Your task to perform on an android device: toggle show notifications on the lock screen Image 0: 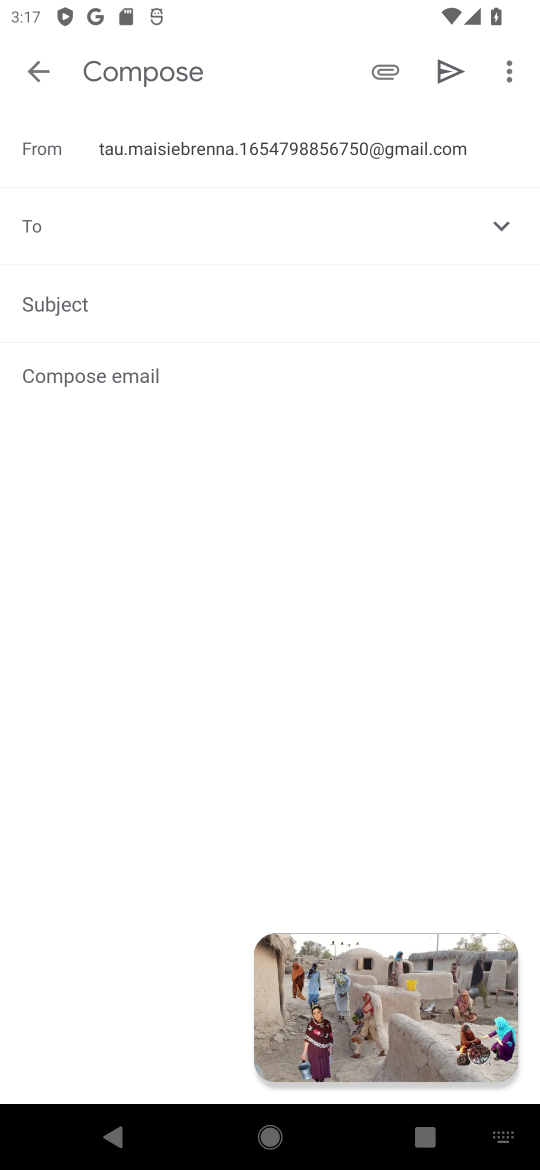
Step 0: click (483, 969)
Your task to perform on an android device: toggle show notifications on the lock screen Image 1: 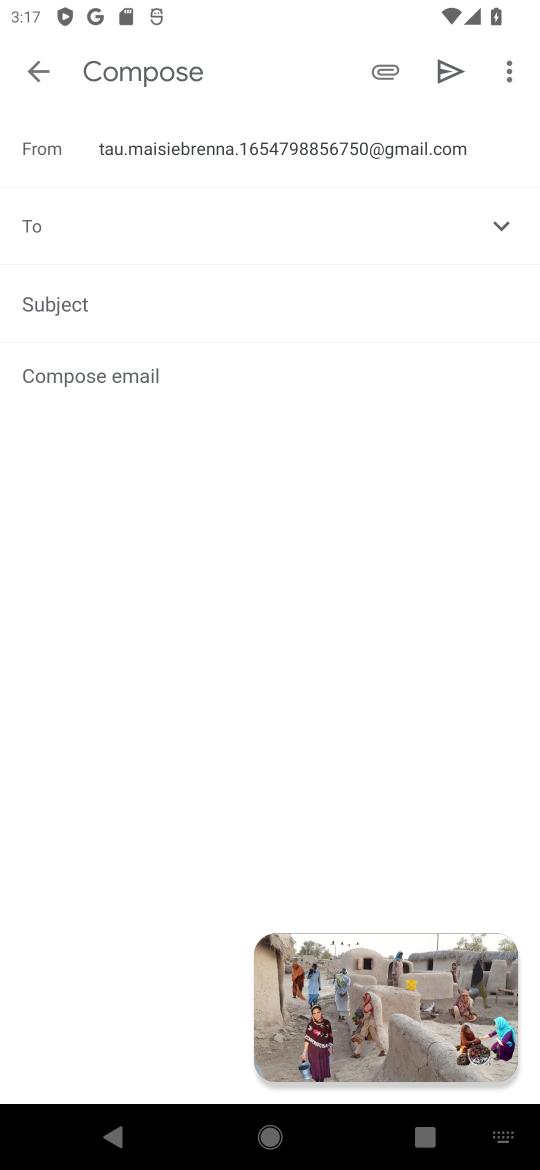
Step 1: click (488, 967)
Your task to perform on an android device: toggle show notifications on the lock screen Image 2: 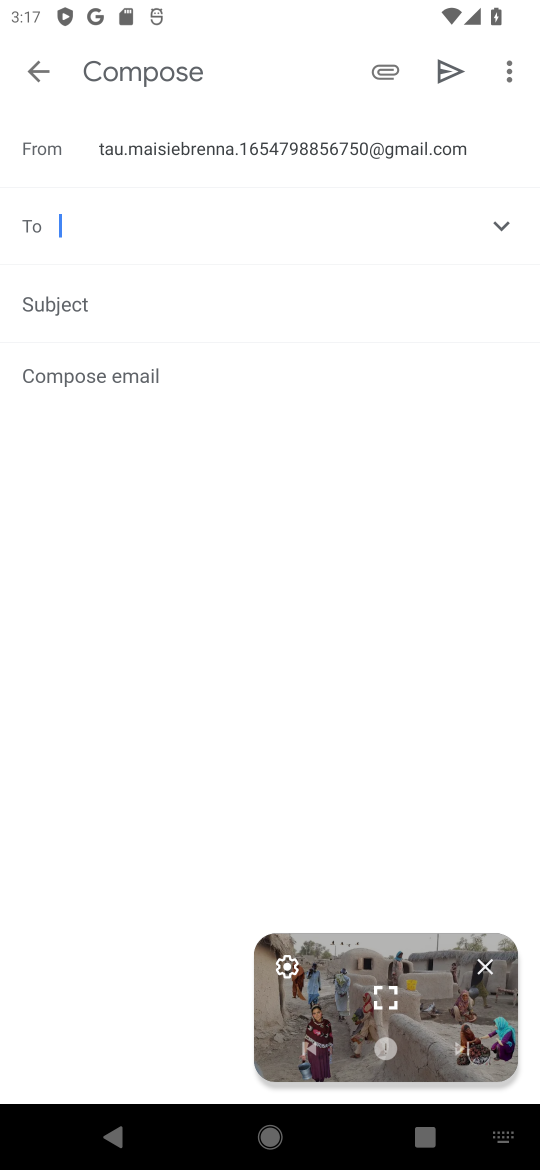
Step 2: click (480, 970)
Your task to perform on an android device: toggle show notifications on the lock screen Image 3: 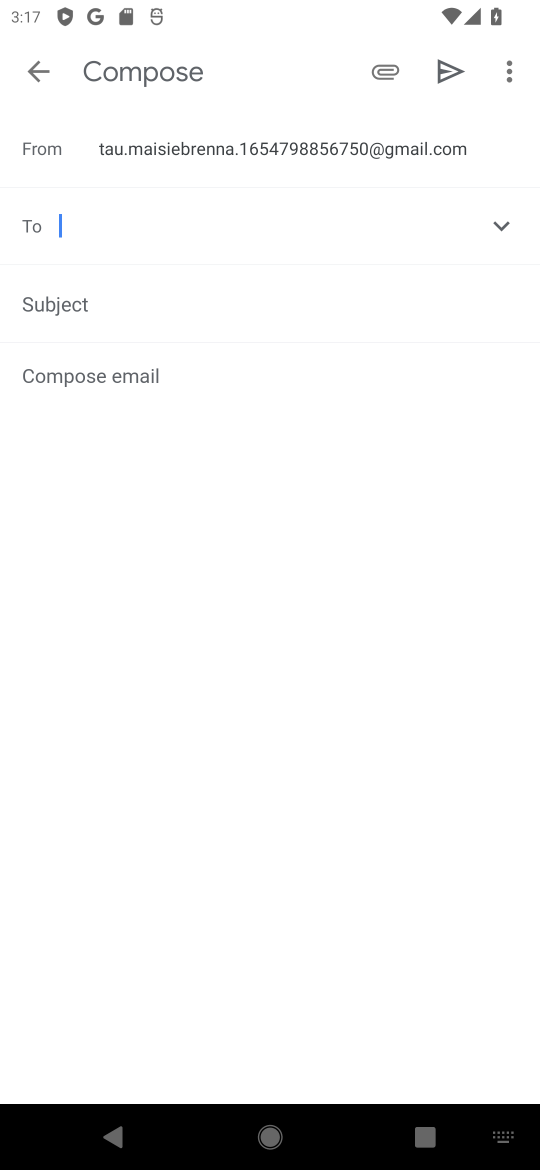
Step 3: press home button
Your task to perform on an android device: toggle show notifications on the lock screen Image 4: 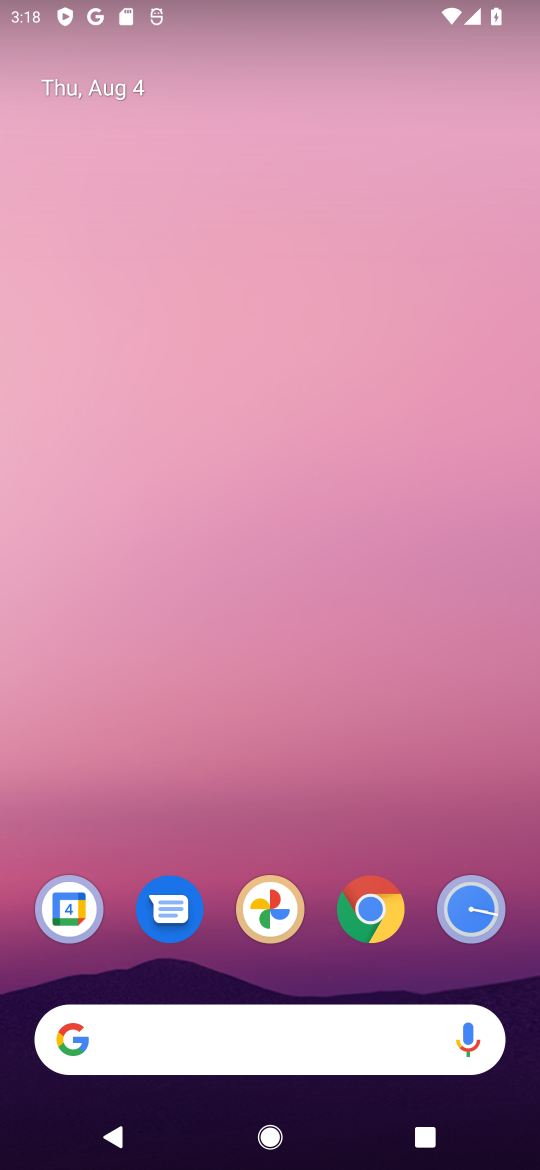
Step 4: drag from (423, 521) to (443, 472)
Your task to perform on an android device: toggle show notifications on the lock screen Image 5: 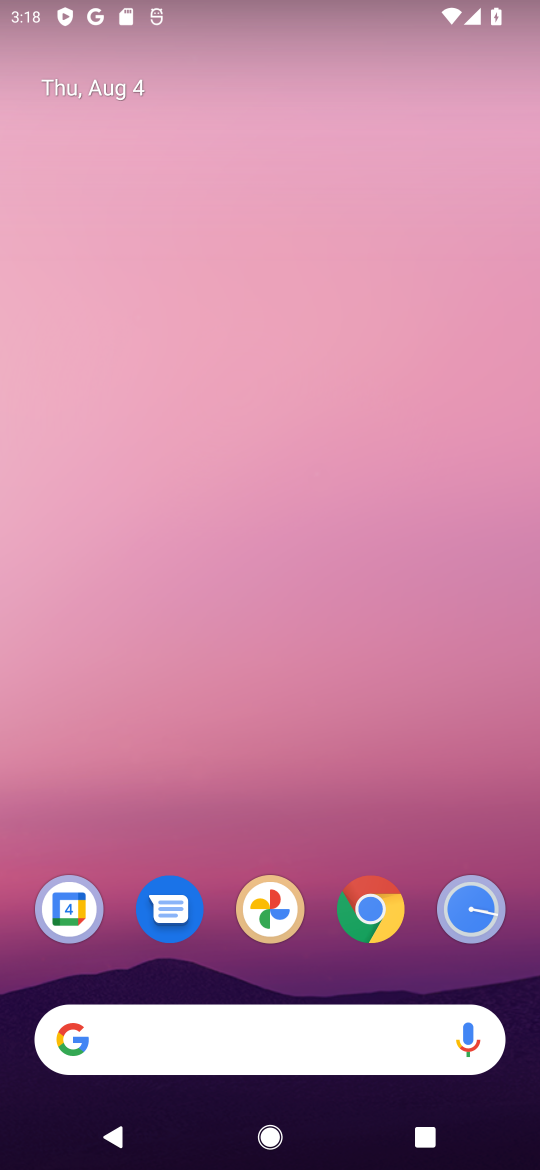
Step 5: drag from (204, 1016) to (330, 187)
Your task to perform on an android device: toggle show notifications on the lock screen Image 6: 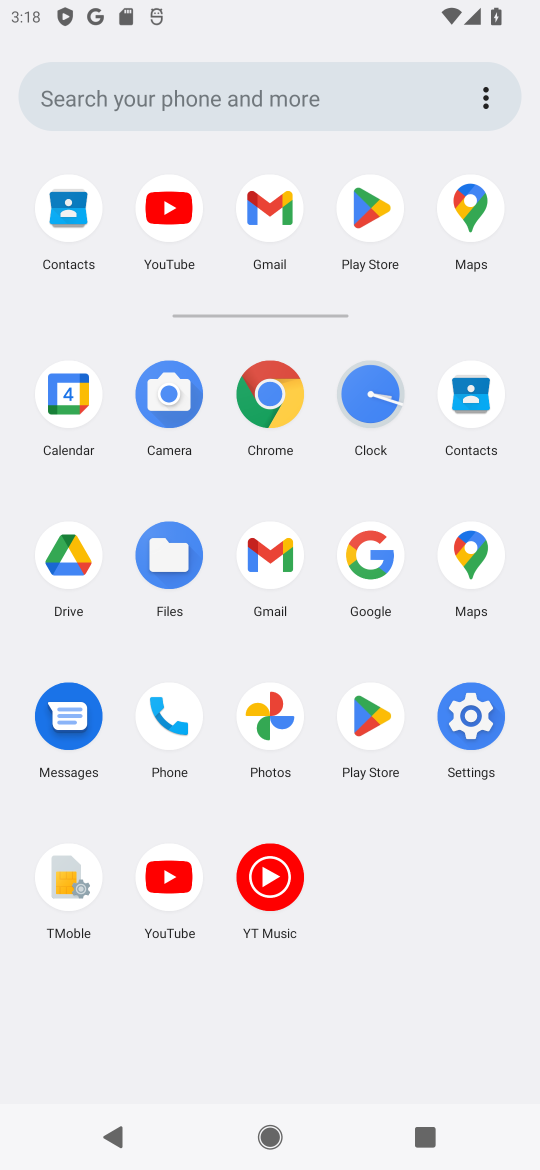
Step 6: click (485, 726)
Your task to perform on an android device: toggle show notifications on the lock screen Image 7: 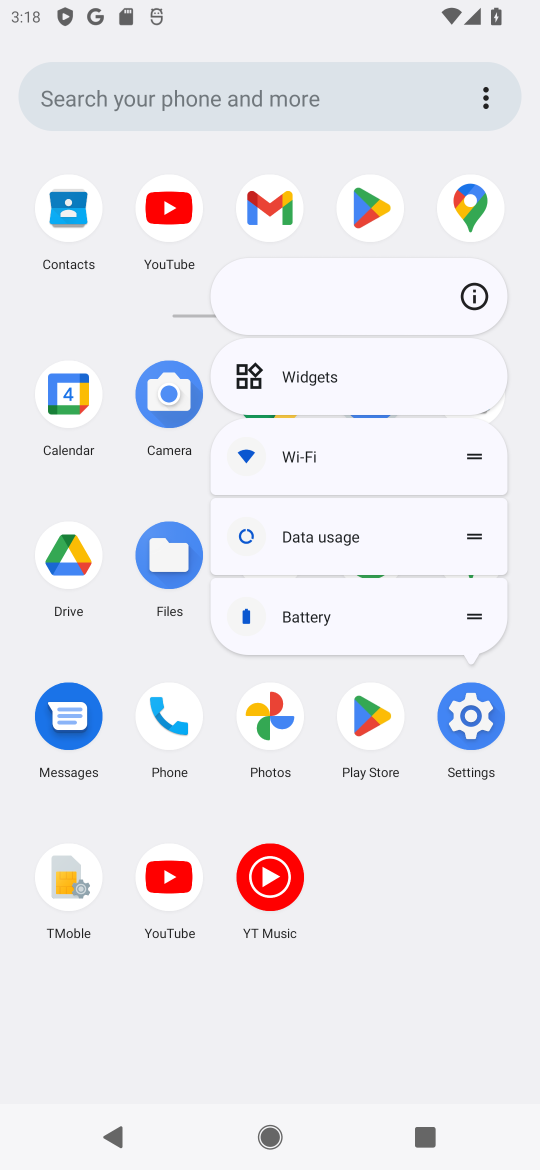
Step 7: click (469, 715)
Your task to perform on an android device: toggle show notifications on the lock screen Image 8: 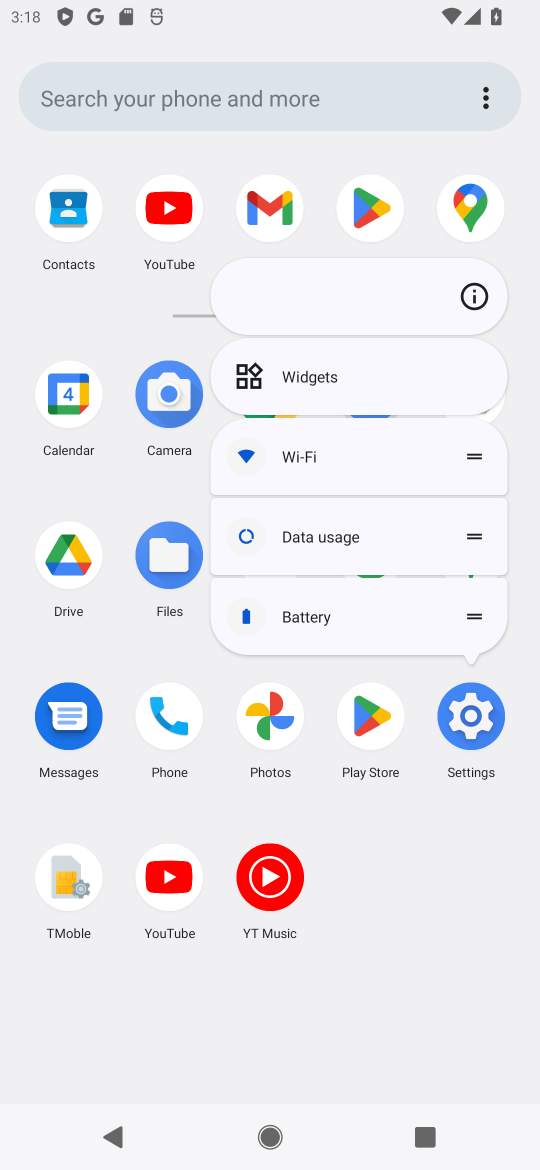
Step 8: click (469, 722)
Your task to perform on an android device: toggle show notifications on the lock screen Image 9: 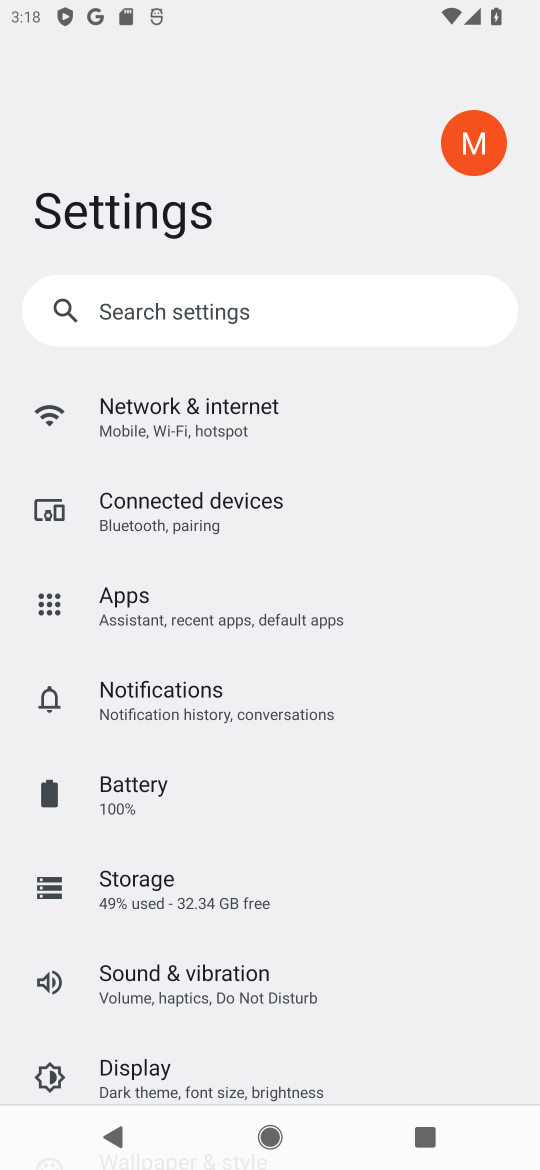
Step 9: click (157, 689)
Your task to perform on an android device: toggle show notifications on the lock screen Image 10: 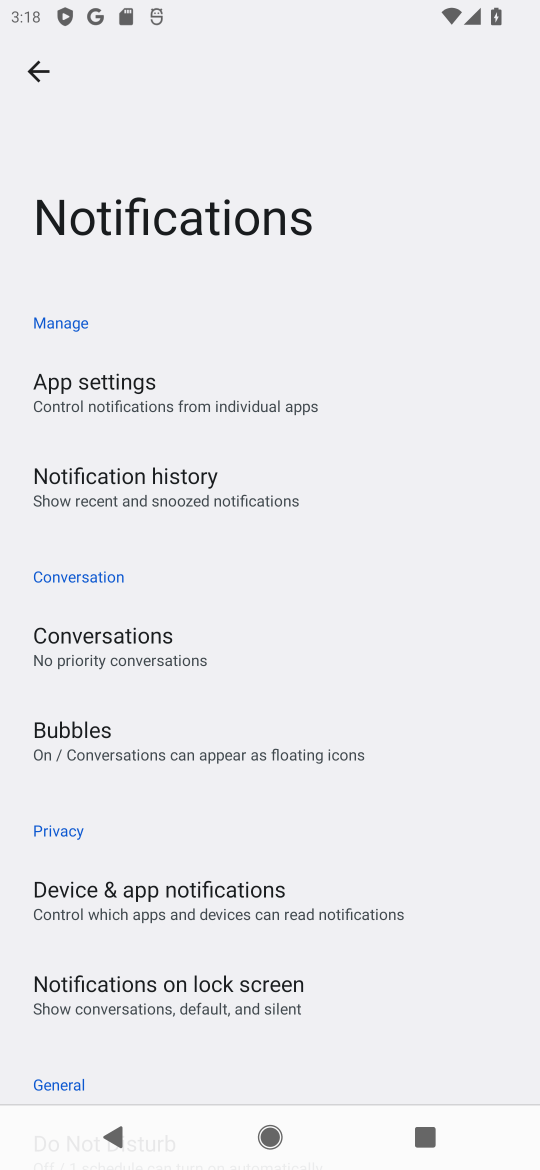
Step 10: click (231, 992)
Your task to perform on an android device: toggle show notifications on the lock screen Image 11: 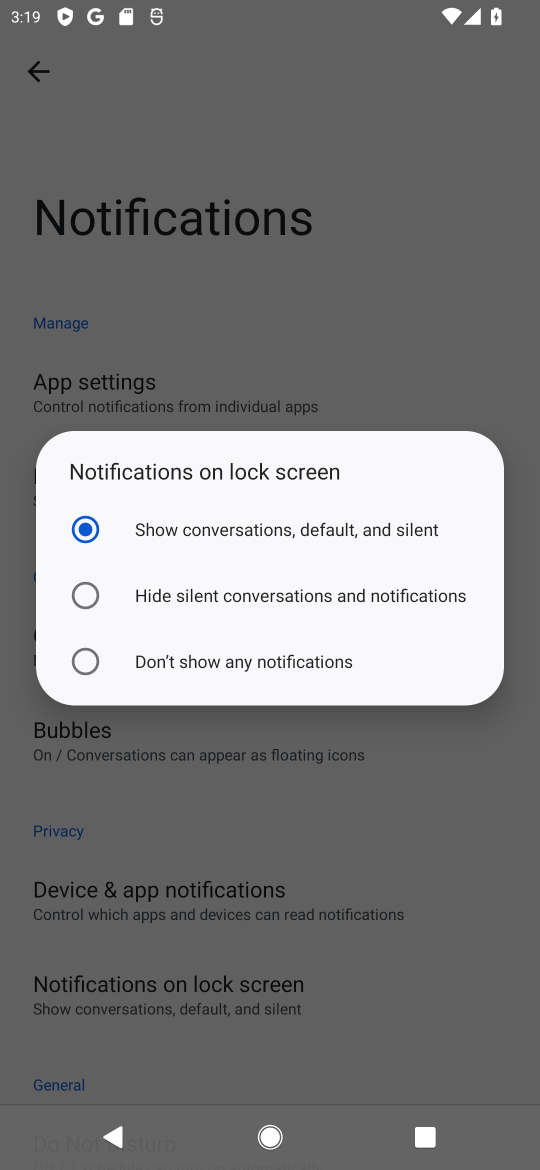
Step 11: click (81, 650)
Your task to perform on an android device: toggle show notifications on the lock screen Image 12: 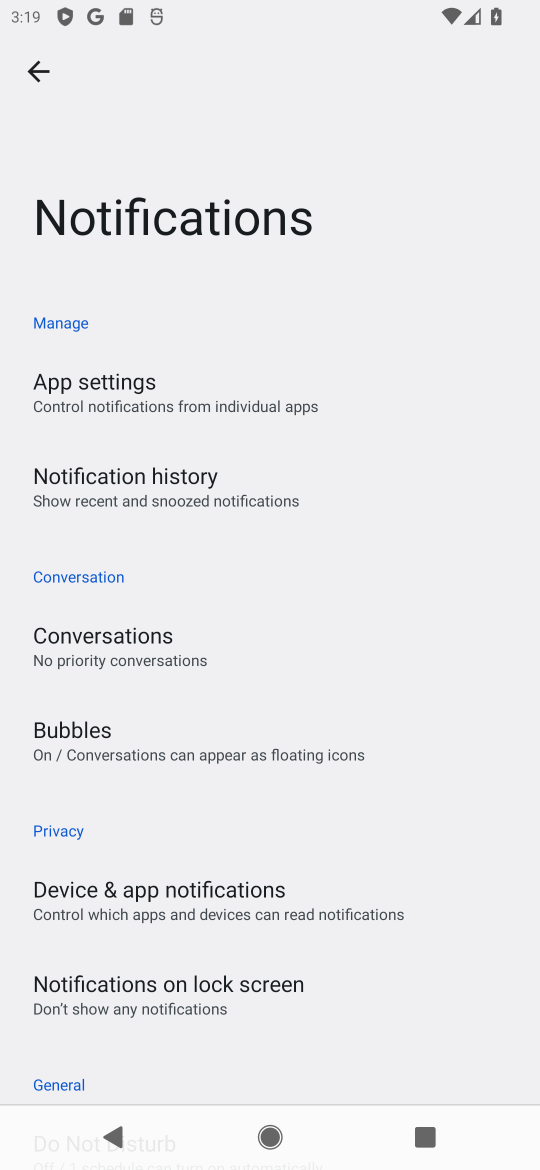
Step 12: task complete